Your task to perform on an android device: Search for "amazon basics triple a" on walmart.com, select the first entry, and add it to the cart. Image 0: 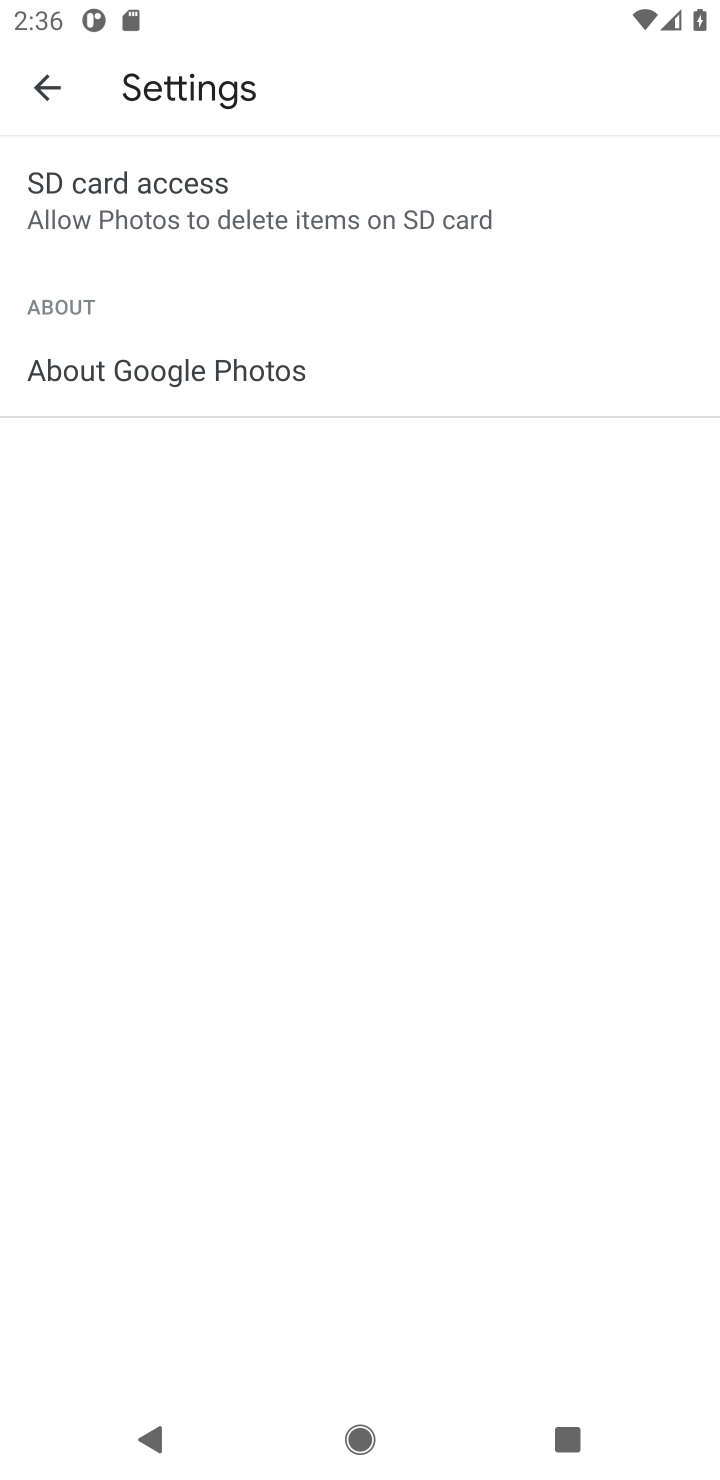
Step 0: press home button
Your task to perform on an android device: Search for "amazon basics triple a" on walmart.com, select the first entry, and add it to the cart. Image 1: 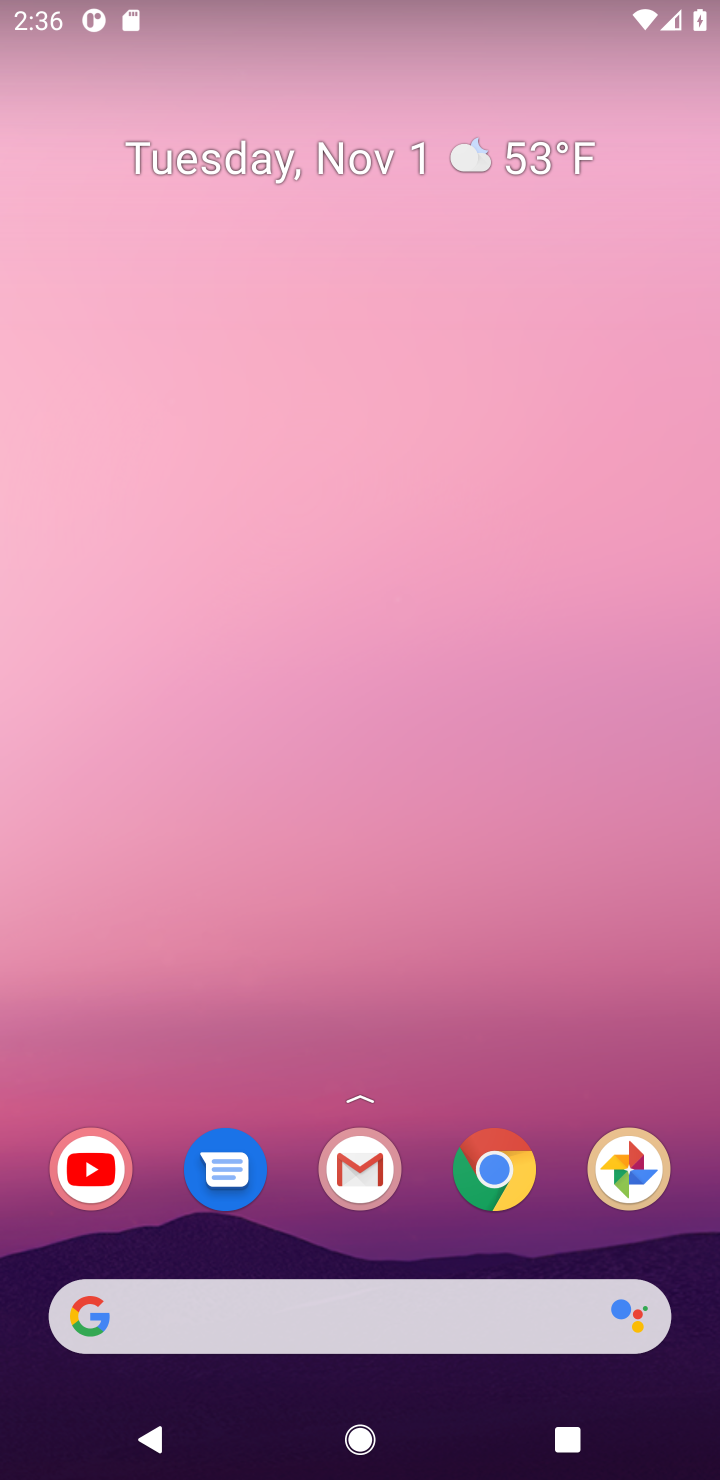
Step 1: drag from (428, 1220) to (522, 158)
Your task to perform on an android device: Search for "amazon basics triple a" on walmart.com, select the first entry, and add it to the cart. Image 2: 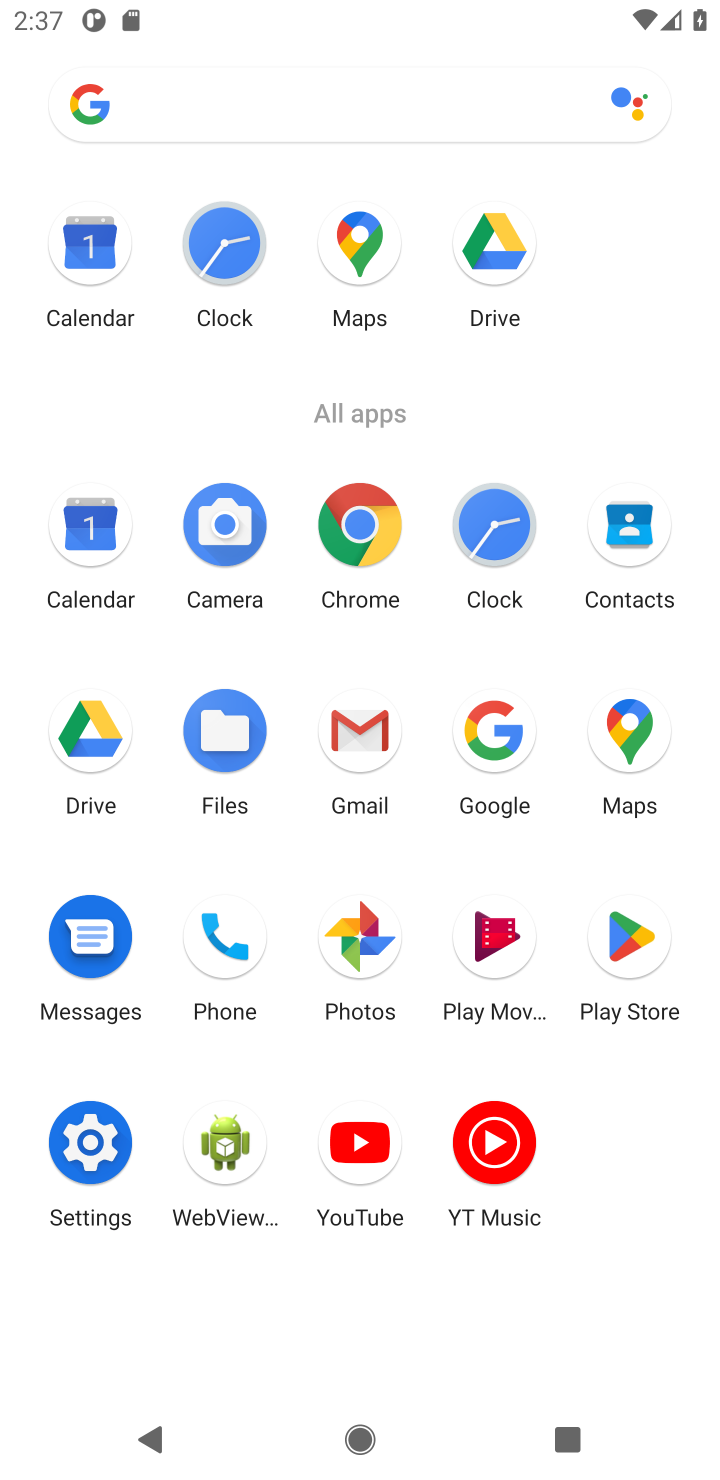
Step 2: click (359, 519)
Your task to perform on an android device: Search for "amazon basics triple a" on walmart.com, select the first entry, and add it to the cart. Image 3: 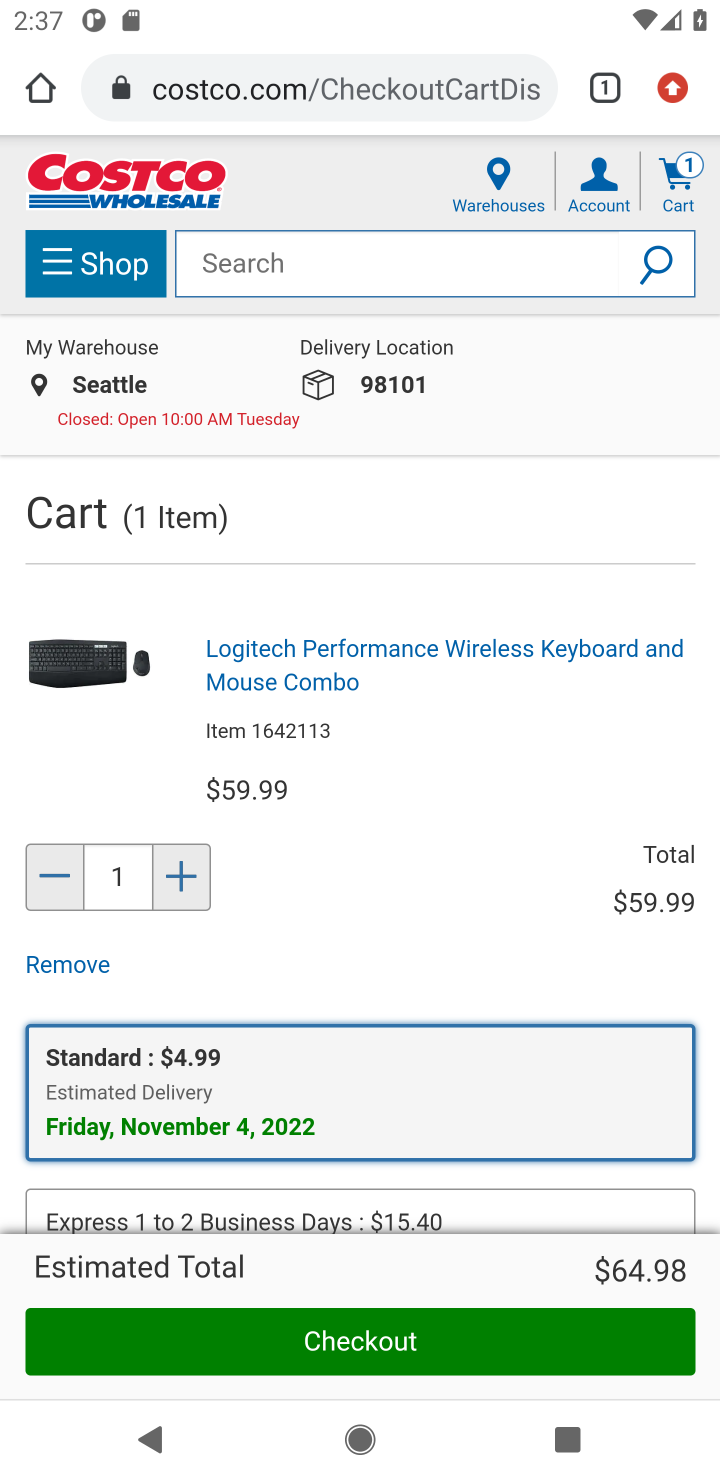
Step 3: click (260, 80)
Your task to perform on an android device: Search for "amazon basics triple a" on walmart.com, select the first entry, and add it to the cart. Image 4: 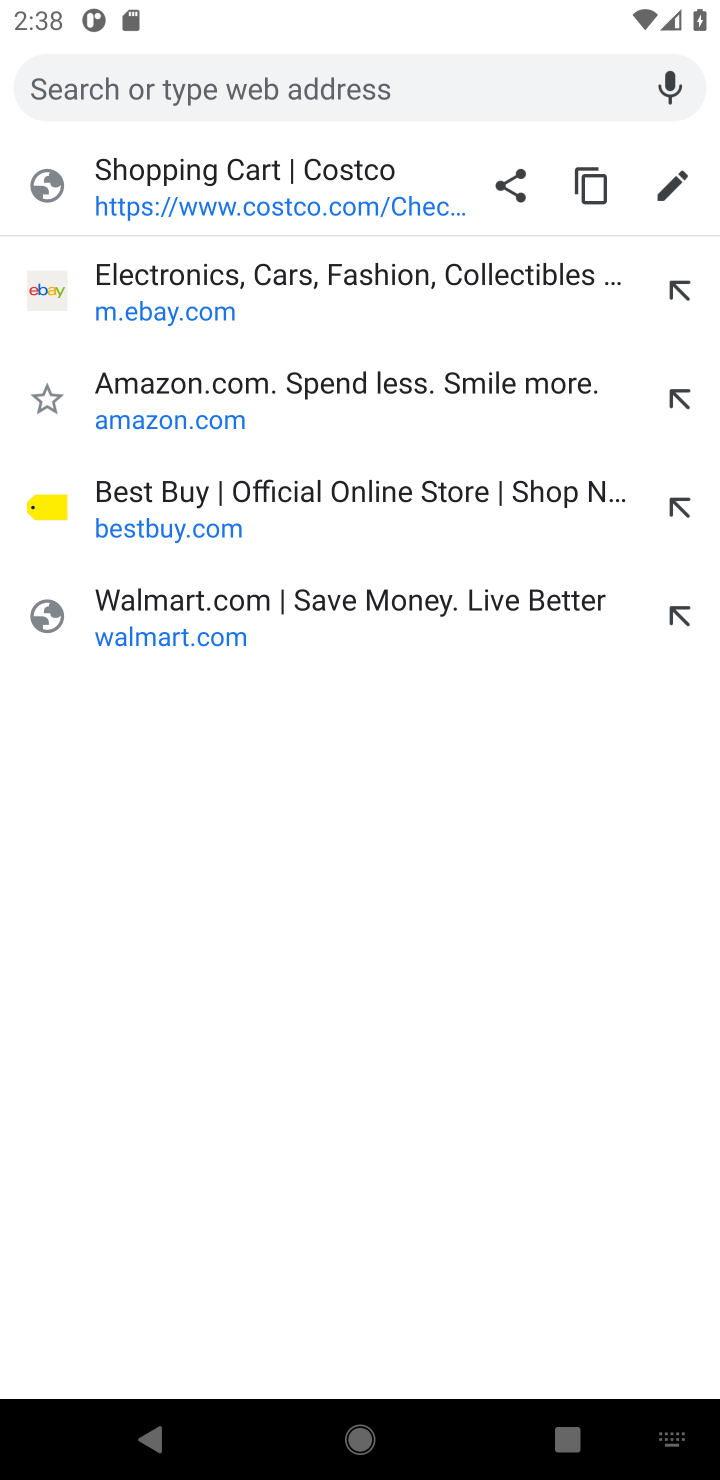
Step 4: type "walmart"
Your task to perform on an android device: Search for "amazon basics triple a" on walmart.com, select the first entry, and add it to the cart. Image 5: 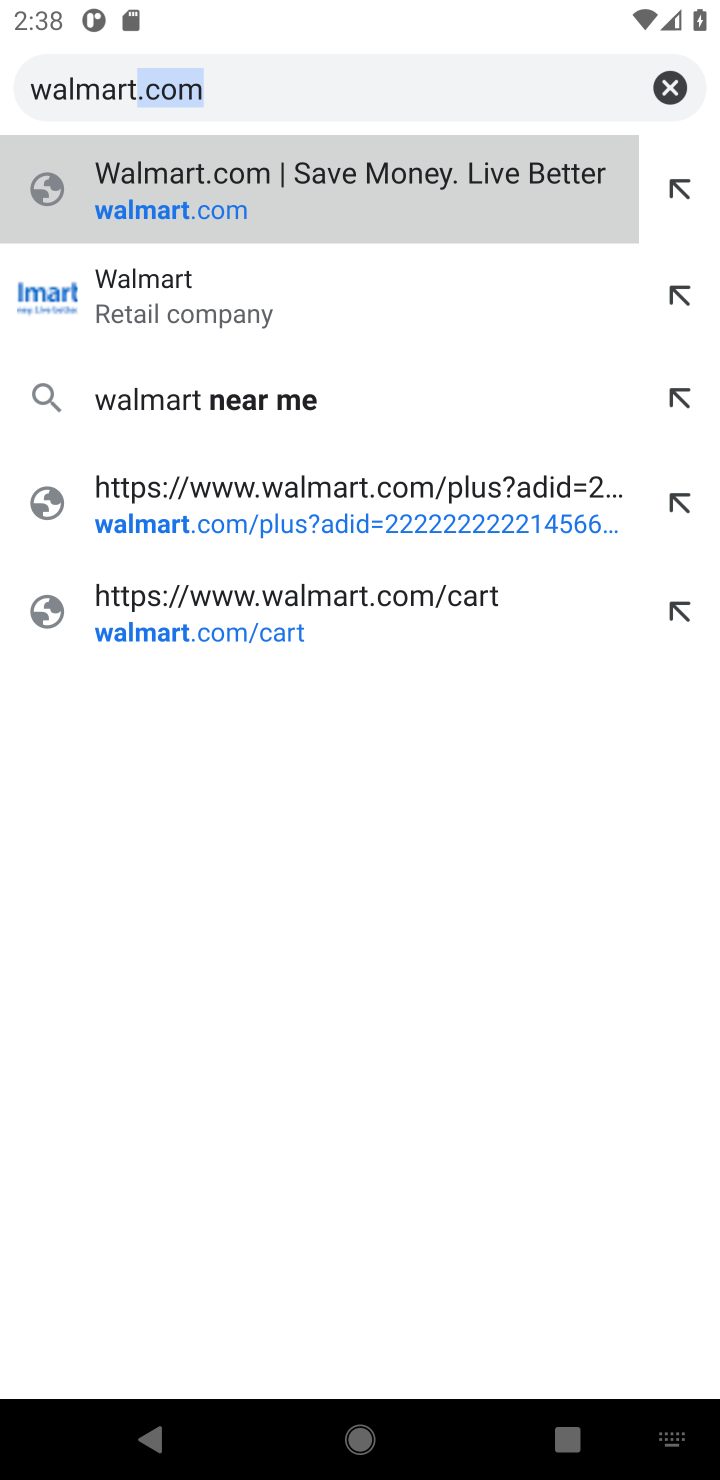
Step 5: click (377, 187)
Your task to perform on an android device: Search for "amazon basics triple a" on walmart.com, select the first entry, and add it to the cart. Image 6: 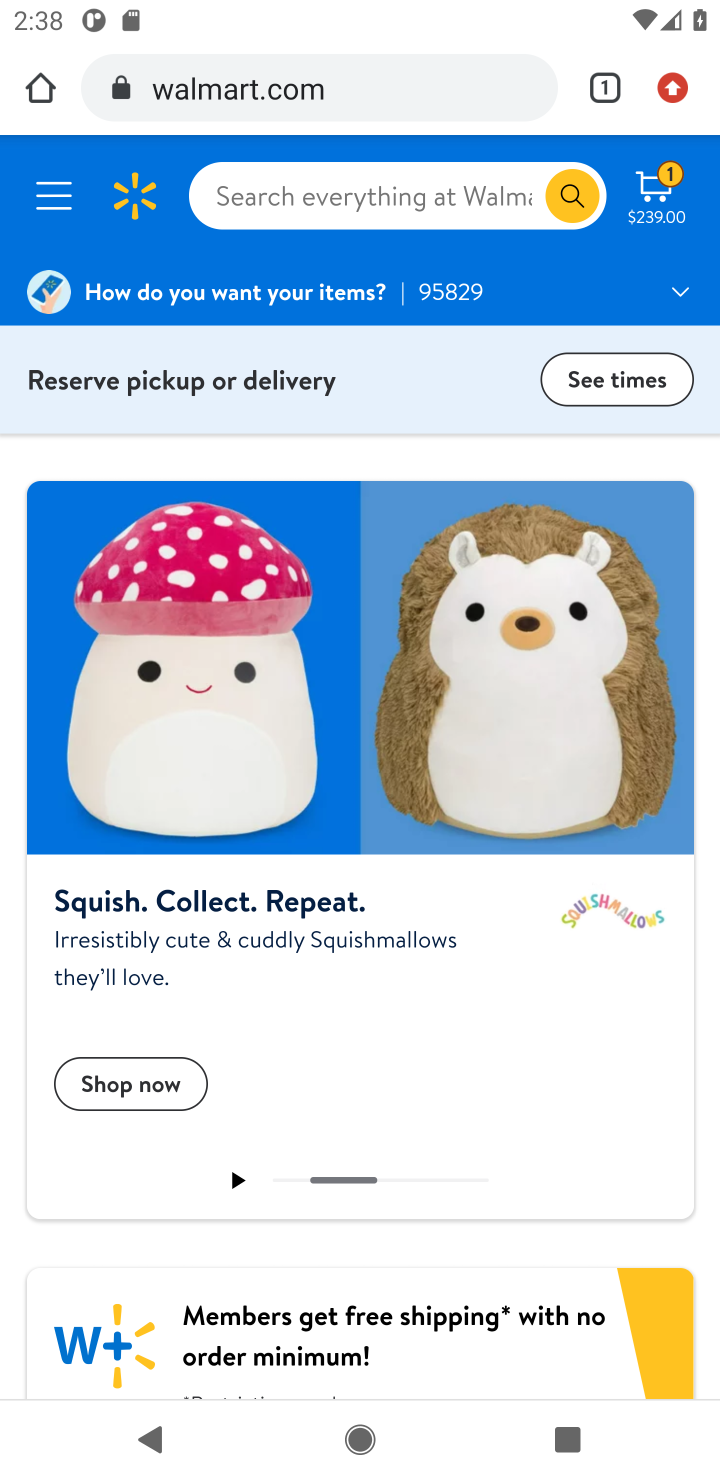
Step 6: click (293, 194)
Your task to perform on an android device: Search for "amazon basics triple a" on walmart.com, select the first entry, and add it to the cart. Image 7: 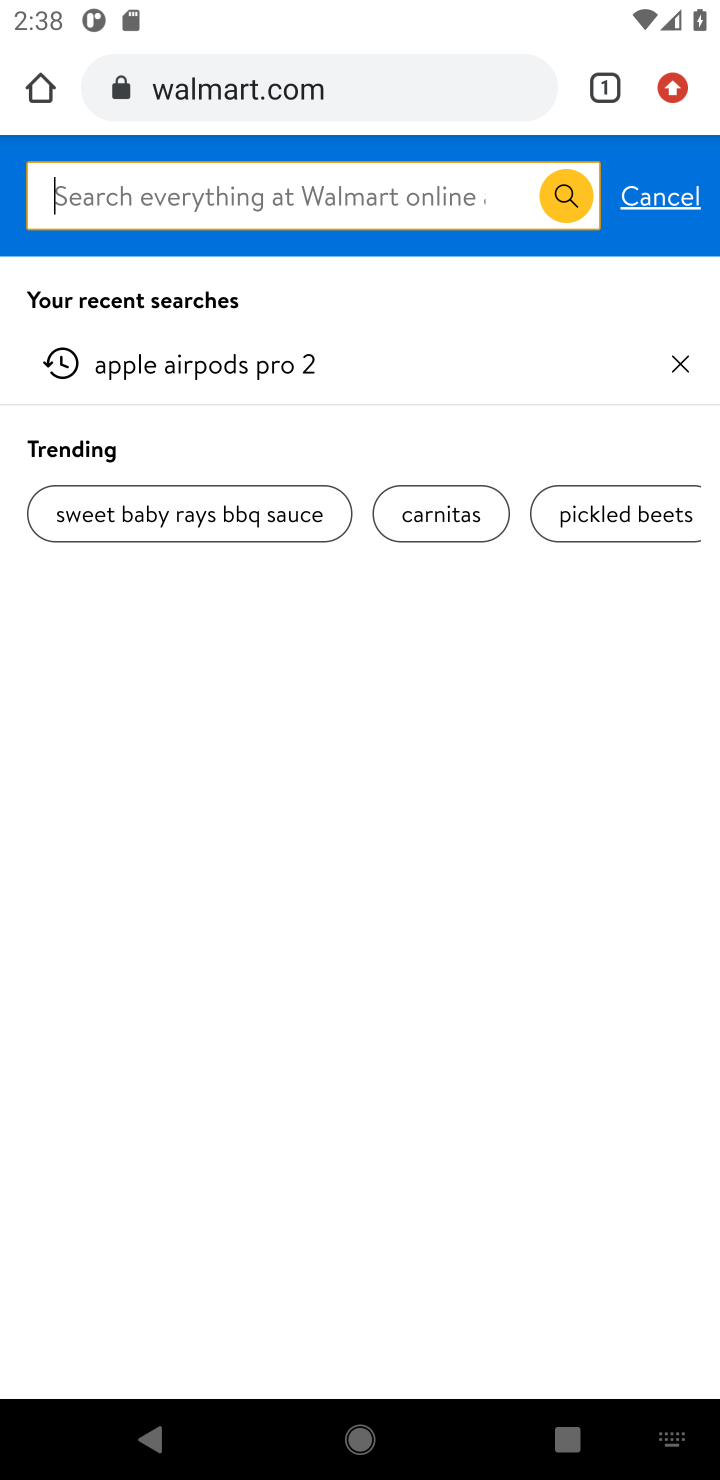
Step 7: click (148, 202)
Your task to perform on an android device: Search for "amazon basics triple a" on walmart.com, select the first entry, and add it to the cart. Image 8: 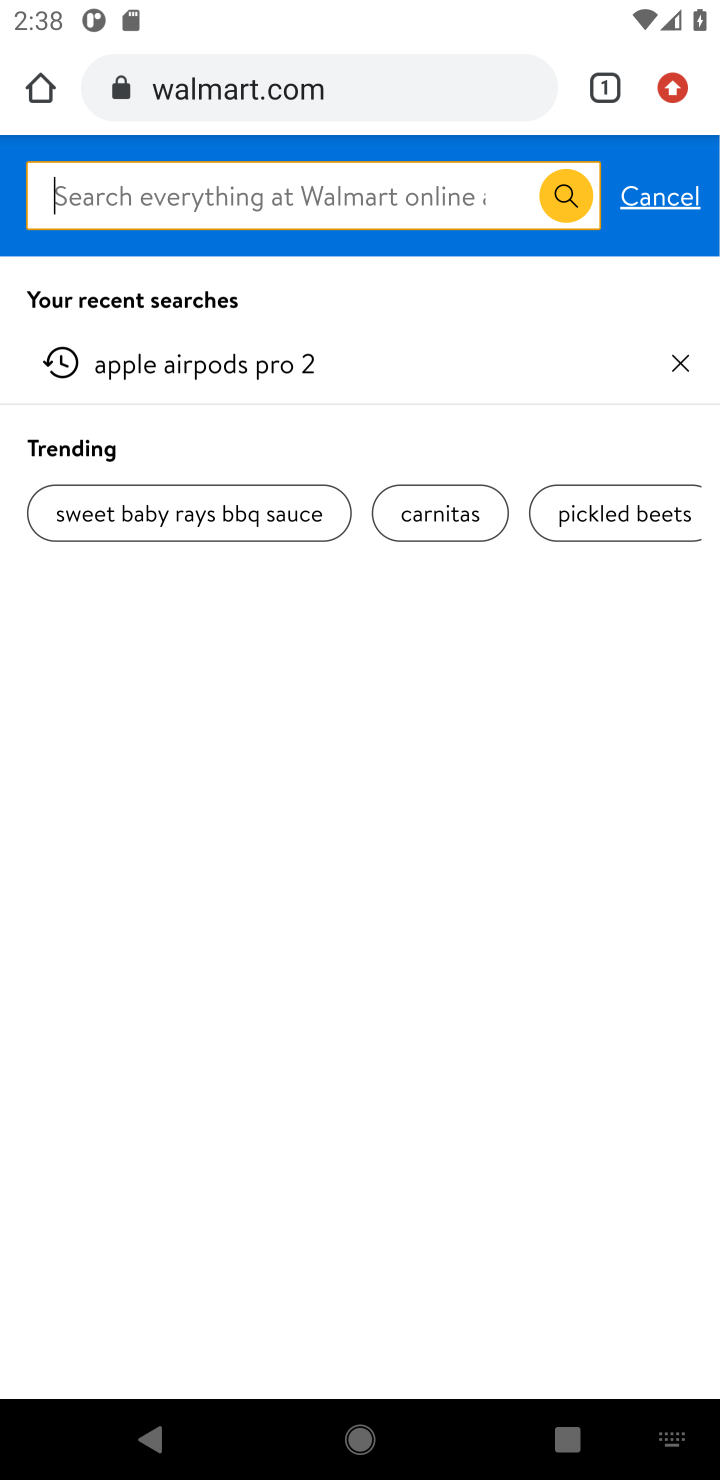
Step 8: type "amazon basics triple a"
Your task to perform on an android device: Search for "amazon basics triple a" on walmart.com, select the first entry, and add it to the cart. Image 9: 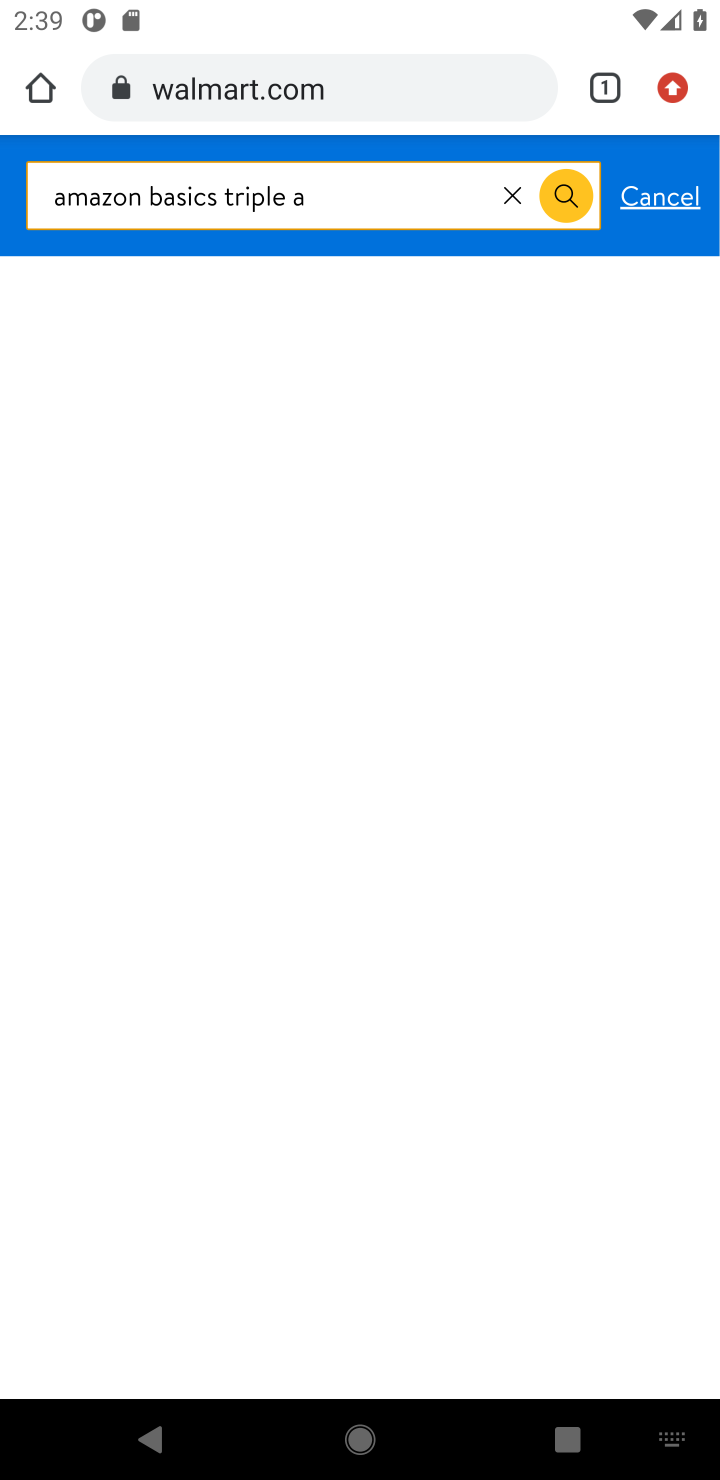
Step 9: click (558, 190)
Your task to perform on an android device: Search for "amazon basics triple a" on walmart.com, select the first entry, and add it to the cart. Image 10: 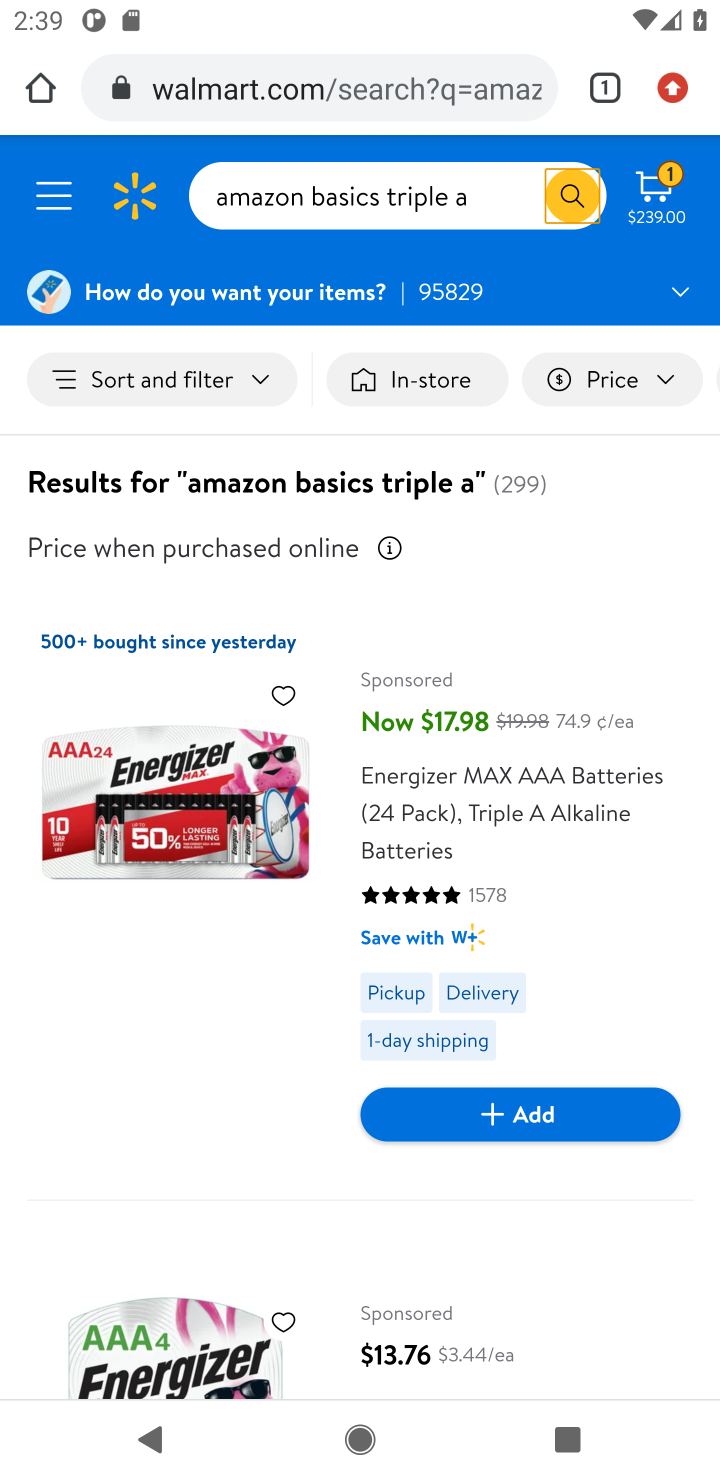
Step 10: click (444, 793)
Your task to perform on an android device: Search for "amazon basics triple a" on walmart.com, select the first entry, and add it to the cart. Image 11: 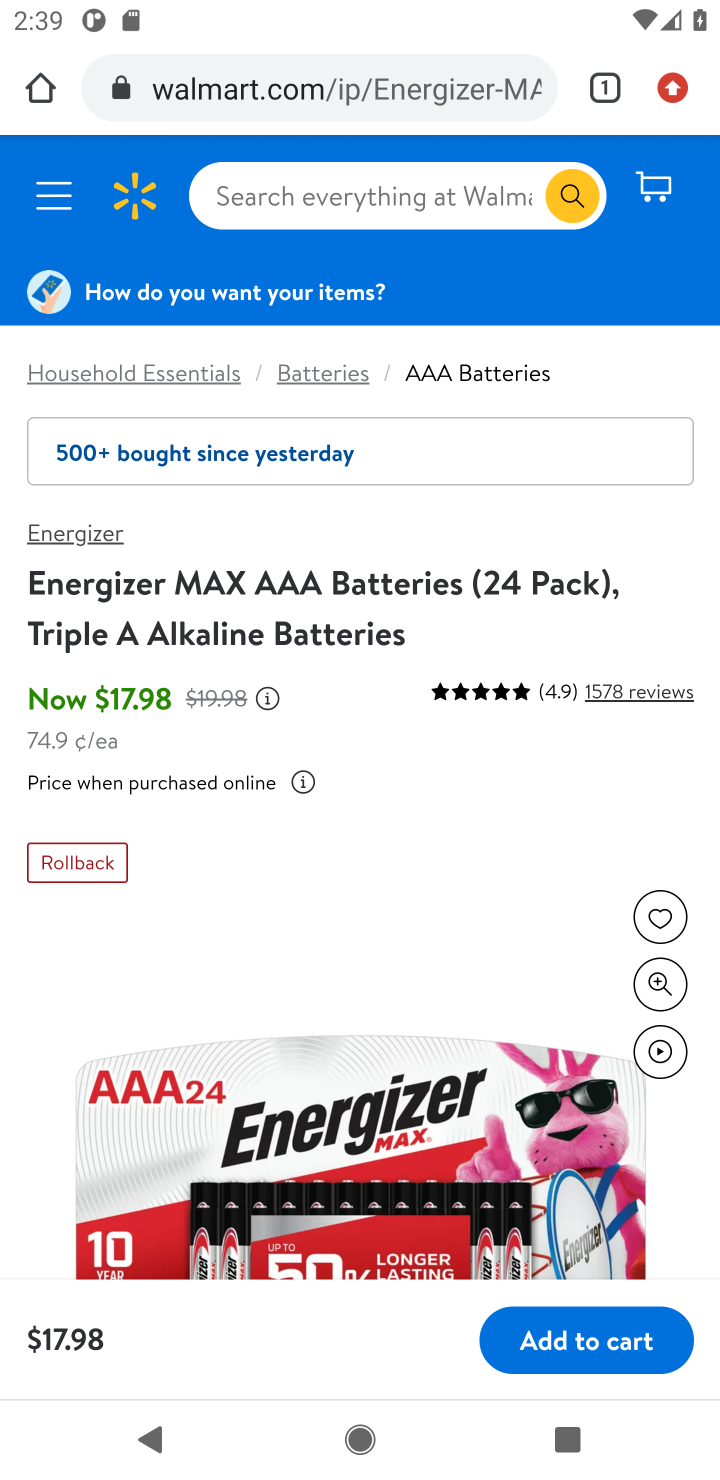
Step 11: drag from (398, 1080) to (377, 365)
Your task to perform on an android device: Search for "amazon basics triple a" on walmart.com, select the first entry, and add it to the cart. Image 12: 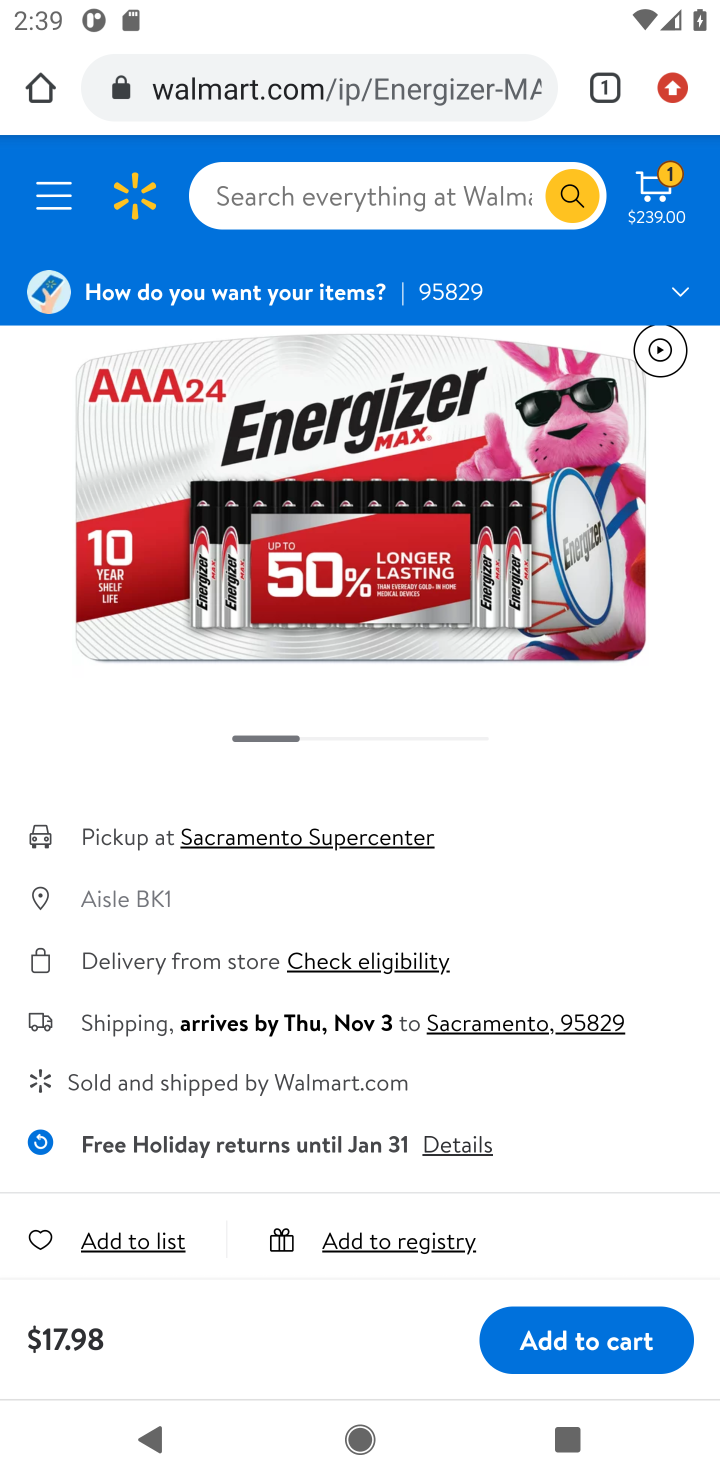
Step 12: click (599, 1351)
Your task to perform on an android device: Search for "amazon basics triple a" on walmart.com, select the first entry, and add it to the cart. Image 13: 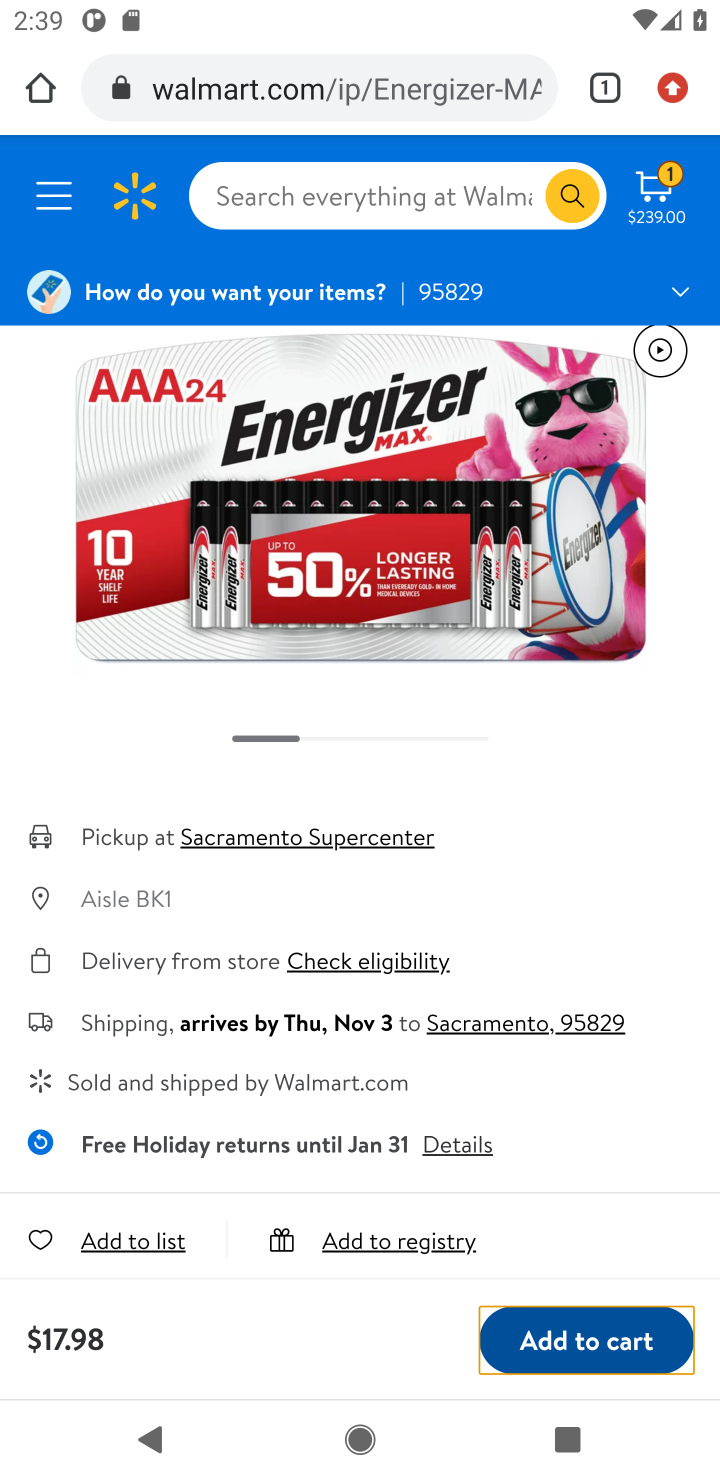
Step 13: click (662, 180)
Your task to perform on an android device: Search for "amazon basics triple a" on walmart.com, select the first entry, and add it to the cart. Image 14: 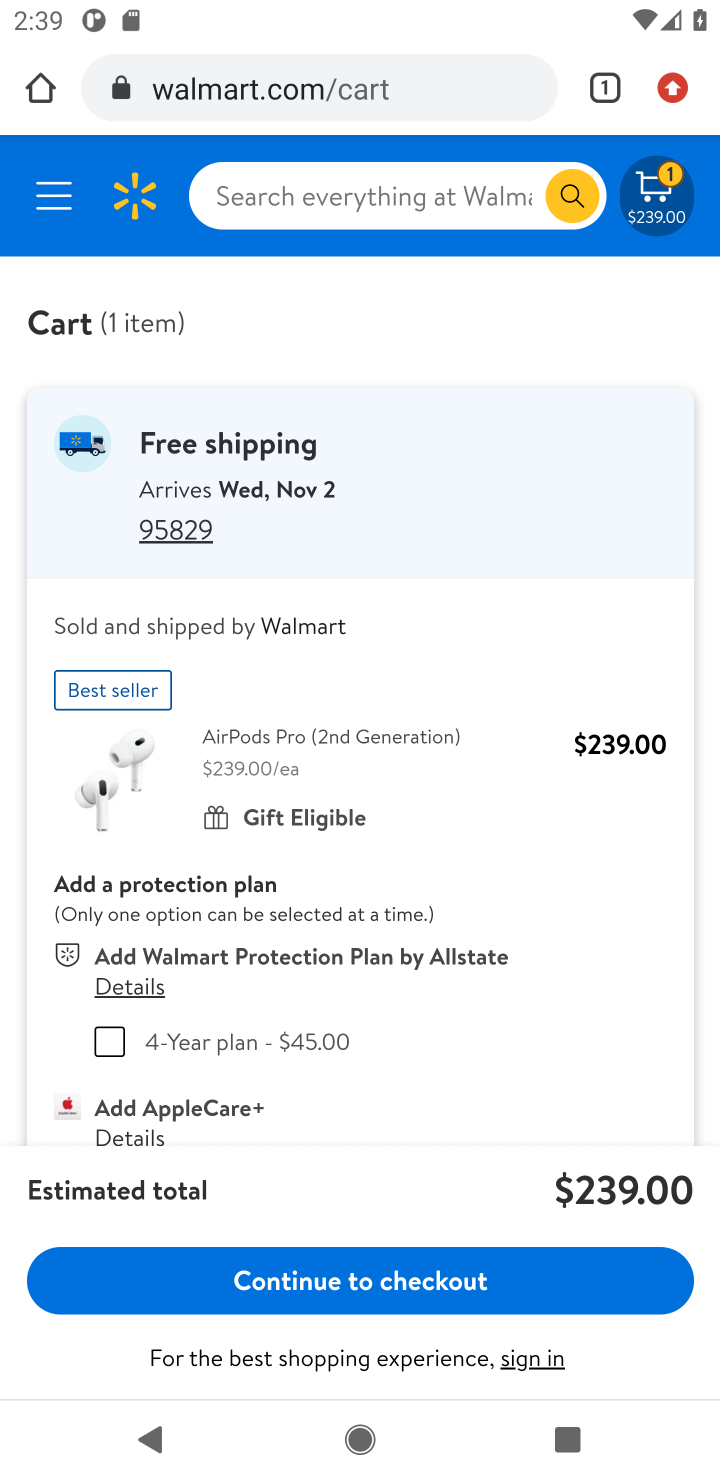
Step 14: click (391, 1280)
Your task to perform on an android device: Search for "amazon basics triple a" on walmart.com, select the first entry, and add it to the cart. Image 15: 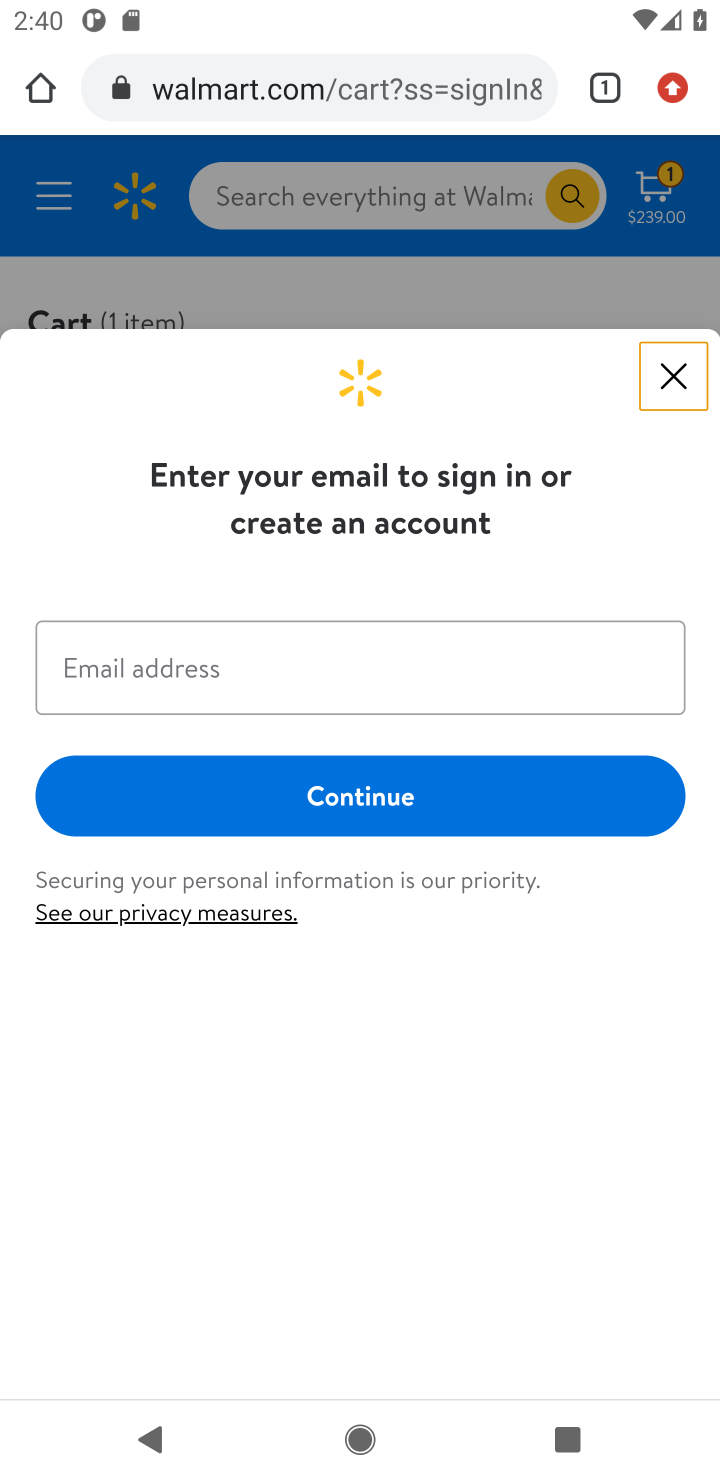
Step 15: task complete